Your task to perform on an android device: Open eBay Image 0: 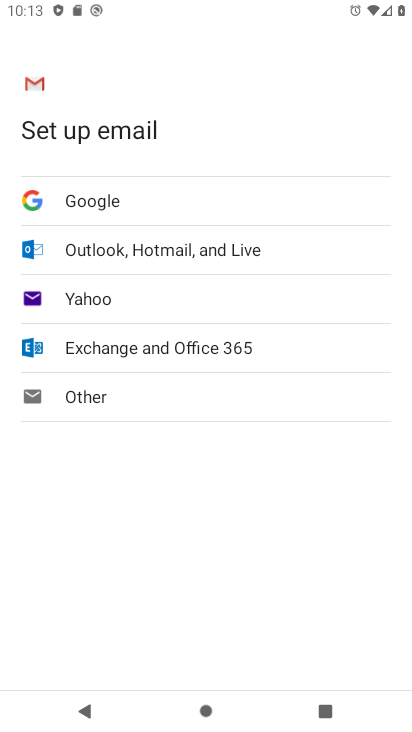
Step 0: press back button
Your task to perform on an android device: Open eBay Image 1: 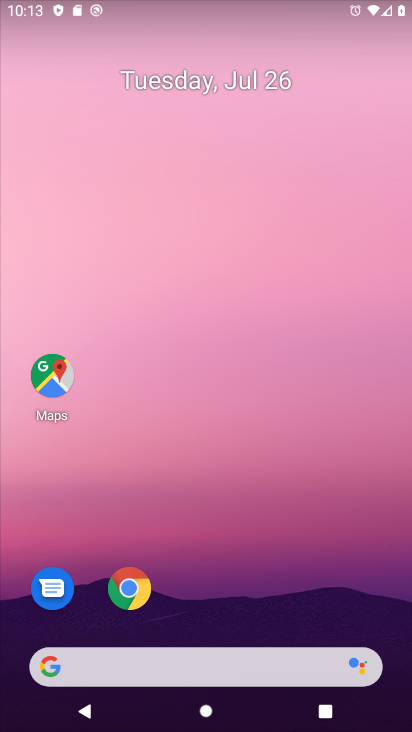
Step 1: click (127, 586)
Your task to perform on an android device: Open eBay Image 2: 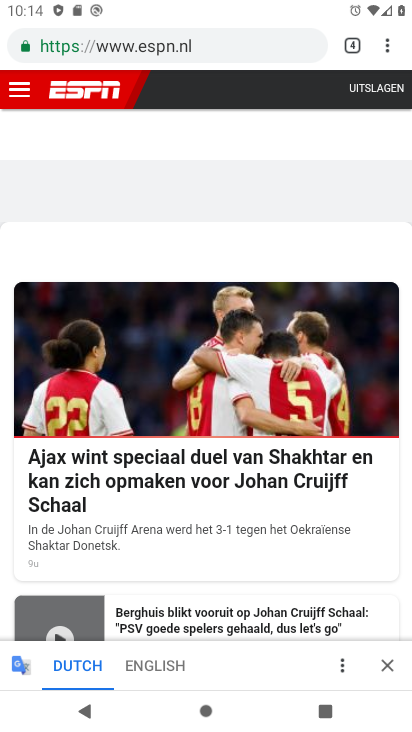
Step 2: click (352, 46)
Your task to perform on an android device: Open eBay Image 3: 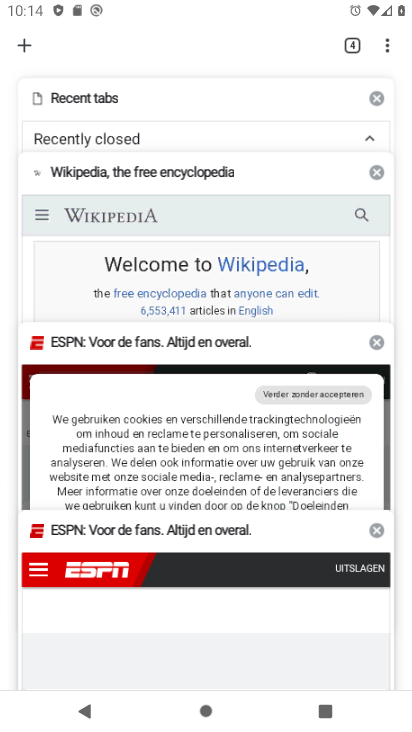
Step 3: click (30, 42)
Your task to perform on an android device: Open eBay Image 4: 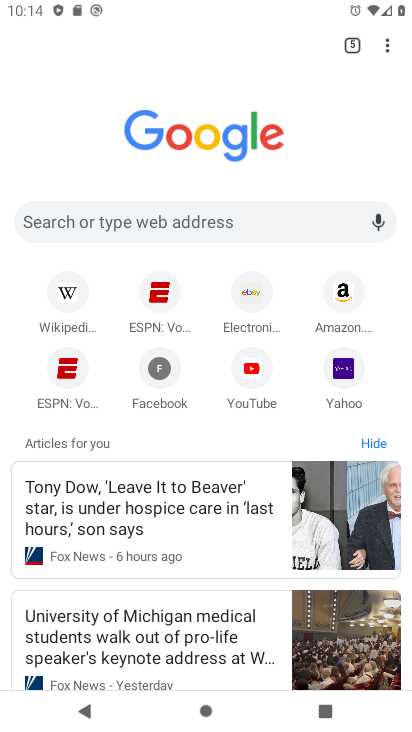
Step 4: click (259, 297)
Your task to perform on an android device: Open eBay Image 5: 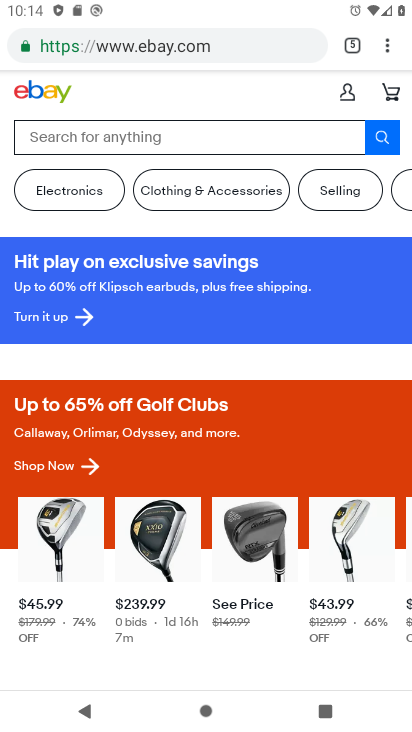
Step 5: task complete